Your task to perform on an android device: Clear the cart on newegg. Search for duracell triple a on newegg, select the first entry, and add it to the cart. Image 0: 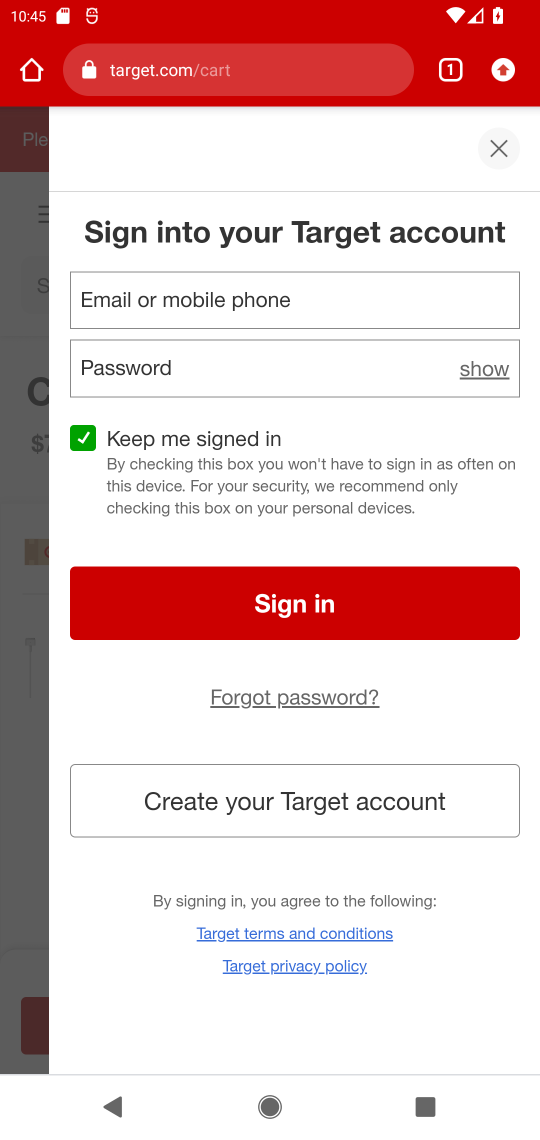
Step 0: press home button
Your task to perform on an android device: Clear the cart on newegg. Search for duracell triple a on newegg, select the first entry, and add it to the cart. Image 1: 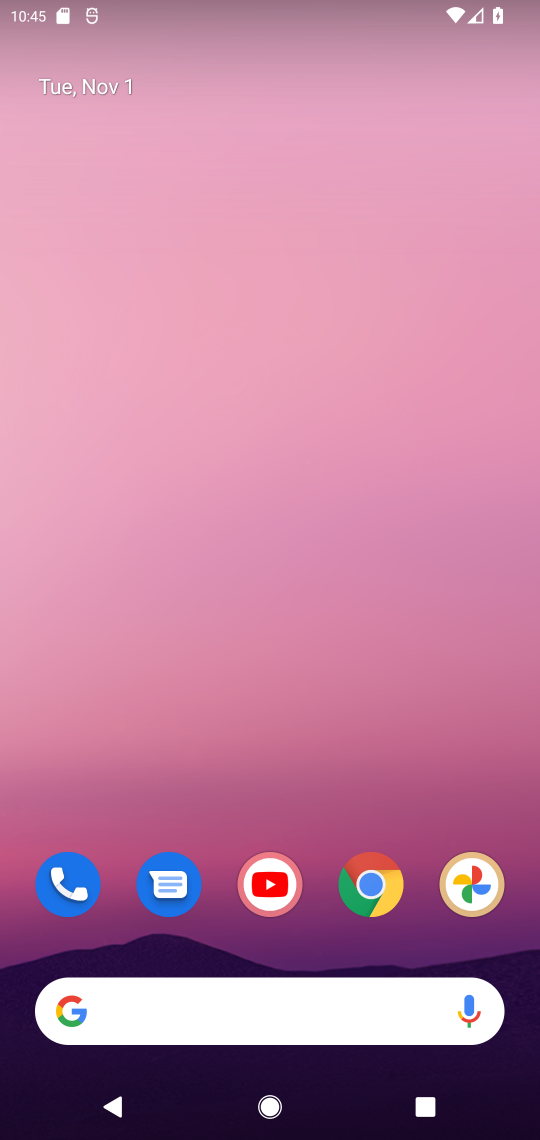
Step 1: click (367, 888)
Your task to perform on an android device: Clear the cart on newegg. Search for duracell triple a on newegg, select the first entry, and add it to the cart. Image 2: 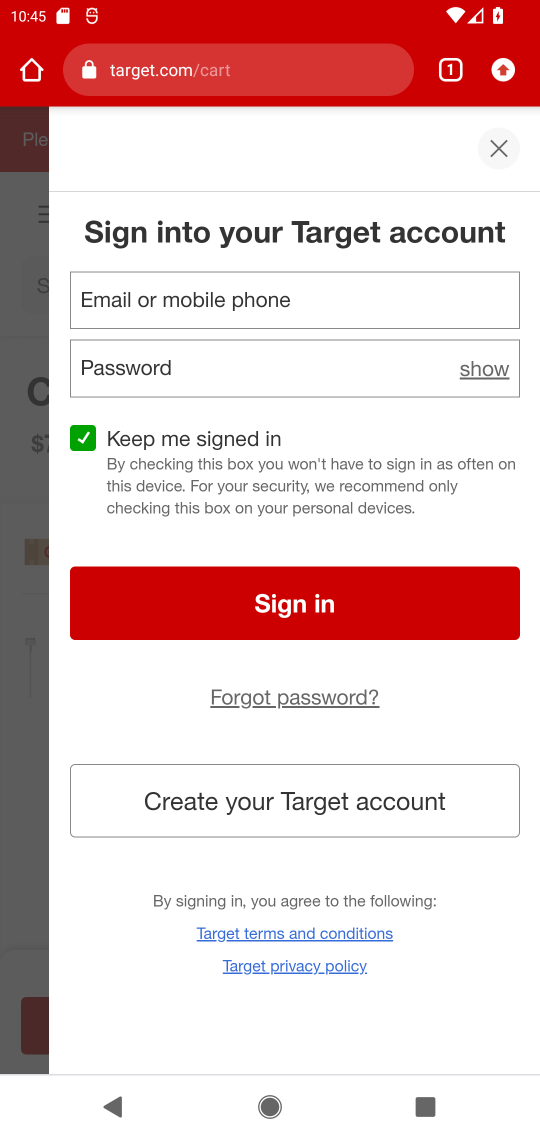
Step 2: click (241, 71)
Your task to perform on an android device: Clear the cart on newegg. Search for duracell triple a on newegg, select the first entry, and add it to the cart. Image 3: 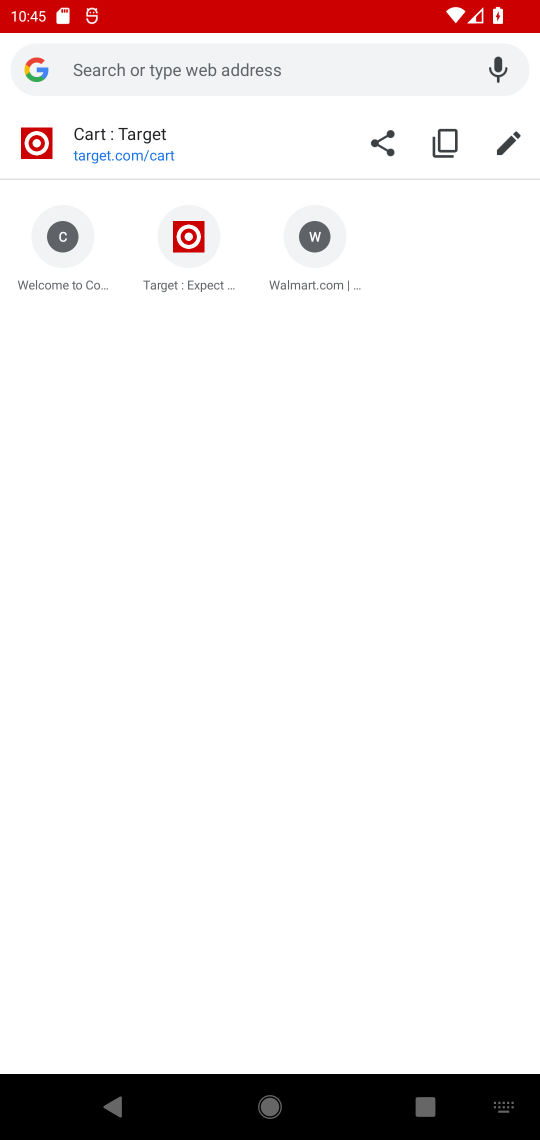
Step 3: type "newegg.com"
Your task to perform on an android device: Clear the cart on newegg. Search for duracell triple a on newegg, select the first entry, and add it to the cart. Image 4: 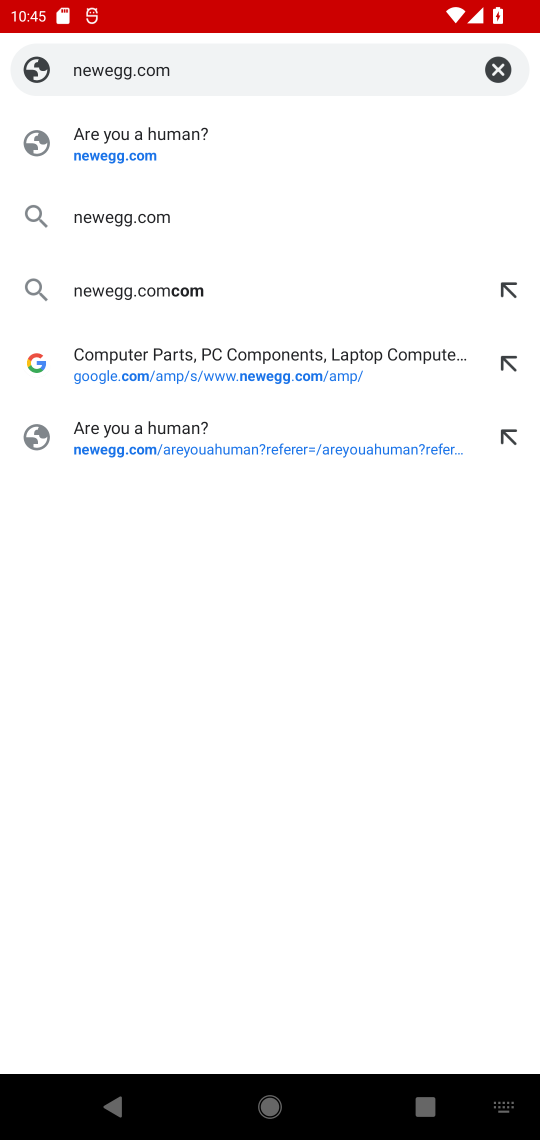
Step 4: click (124, 230)
Your task to perform on an android device: Clear the cart on newegg. Search for duracell triple a on newegg, select the first entry, and add it to the cart. Image 5: 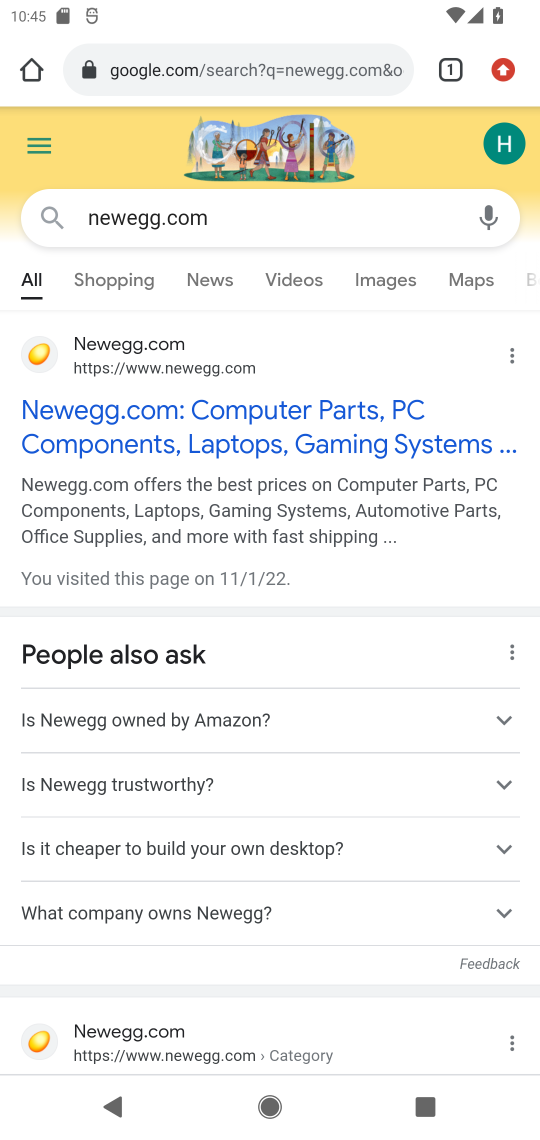
Step 5: click (67, 429)
Your task to perform on an android device: Clear the cart on newegg. Search for duracell triple a on newegg, select the first entry, and add it to the cart. Image 6: 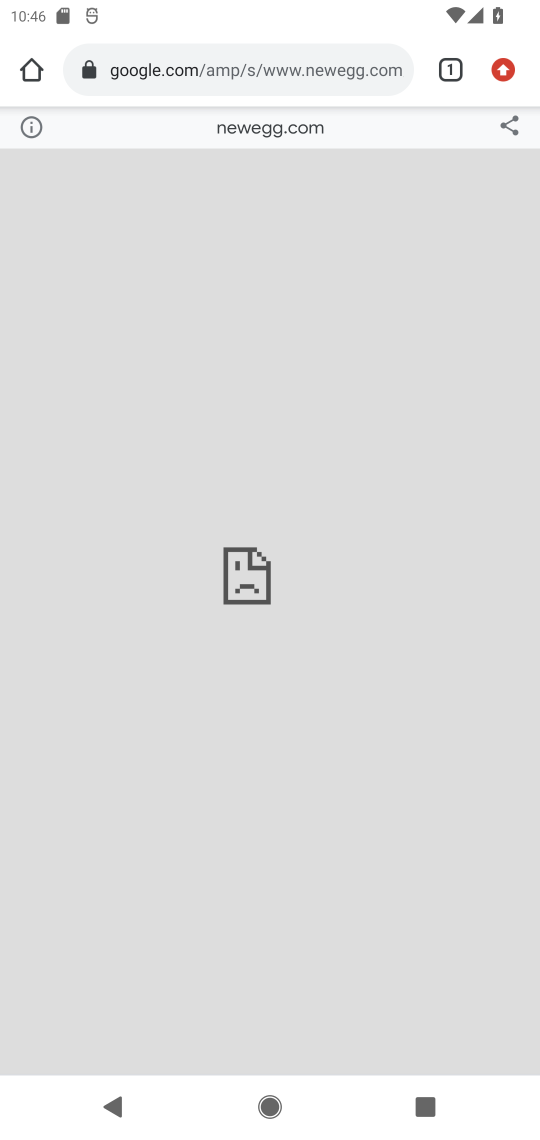
Step 6: click (306, 81)
Your task to perform on an android device: Clear the cart on newegg. Search for duracell triple a on newegg, select the first entry, and add it to the cart. Image 7: 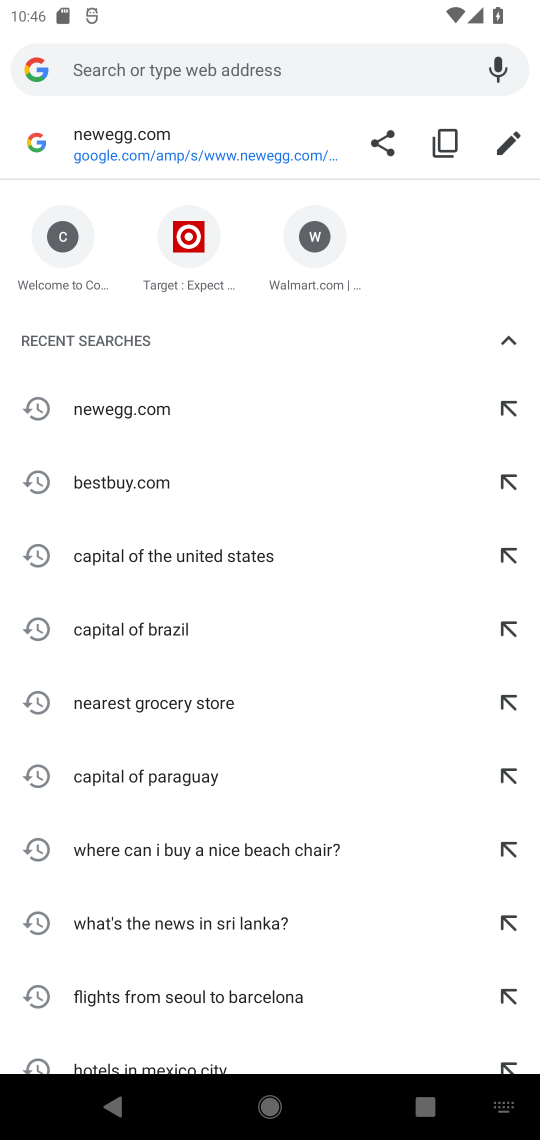
Step 7: click (138, 142)
Your task to perform on an android device: Clear the cart on newegg. Search for duracell triple a on newegg, select the first entry, and add it to the cart. Image 8: 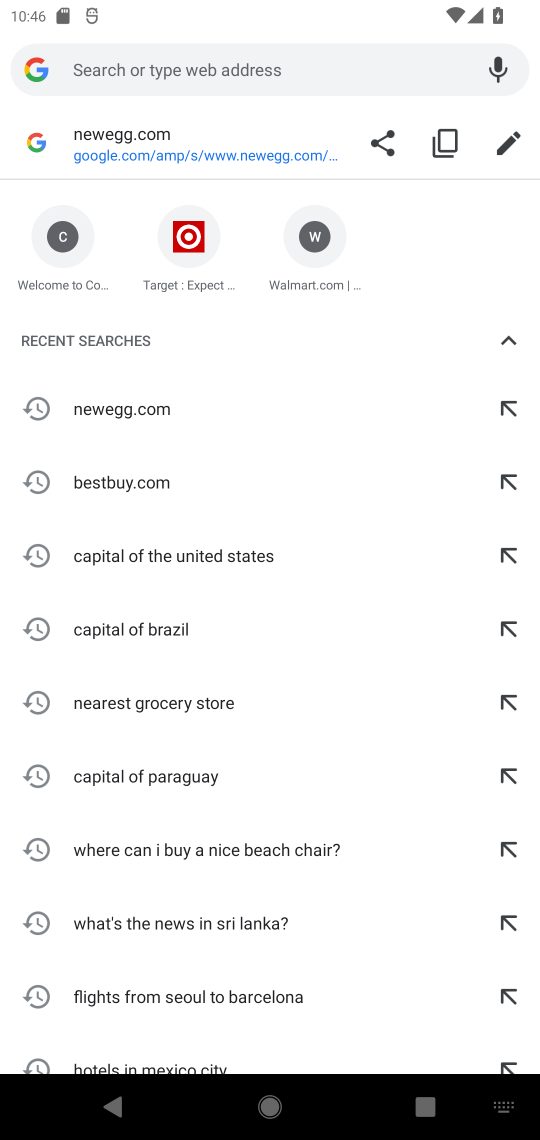
Step 8: click (82, 137)
Your task to perform on an android device: Clear the cart on newegg. Search for duracell triple a on newegg, select the first entry, and add it to the cart. Image 9: 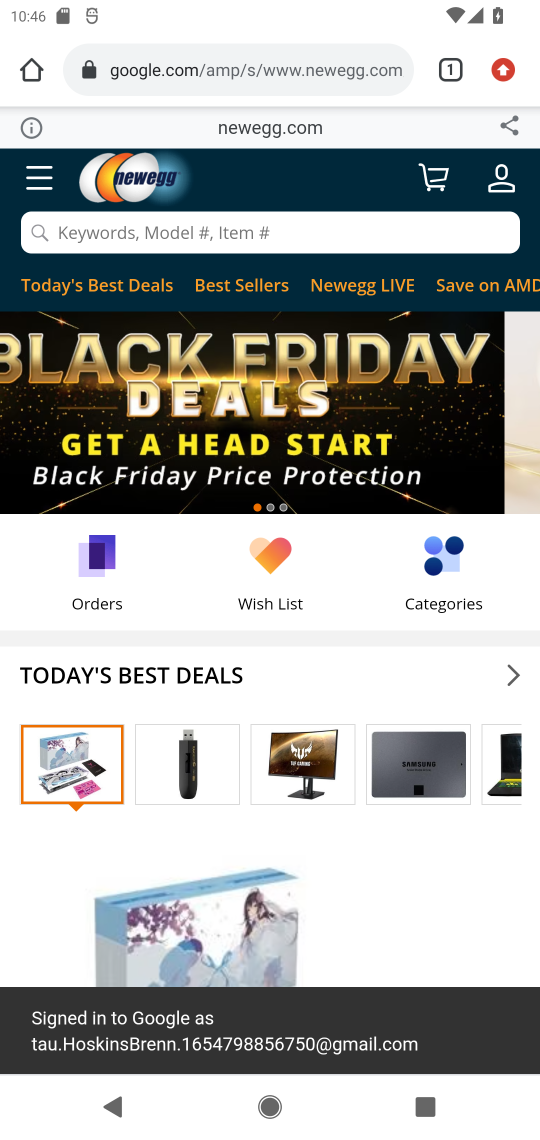
Step 9: click (131, 238)
Your task to perform on an android device: Clear the cart on newegg. Search for duracell triple a on newegg, select the first entry, and add it to the cart. Image 10: 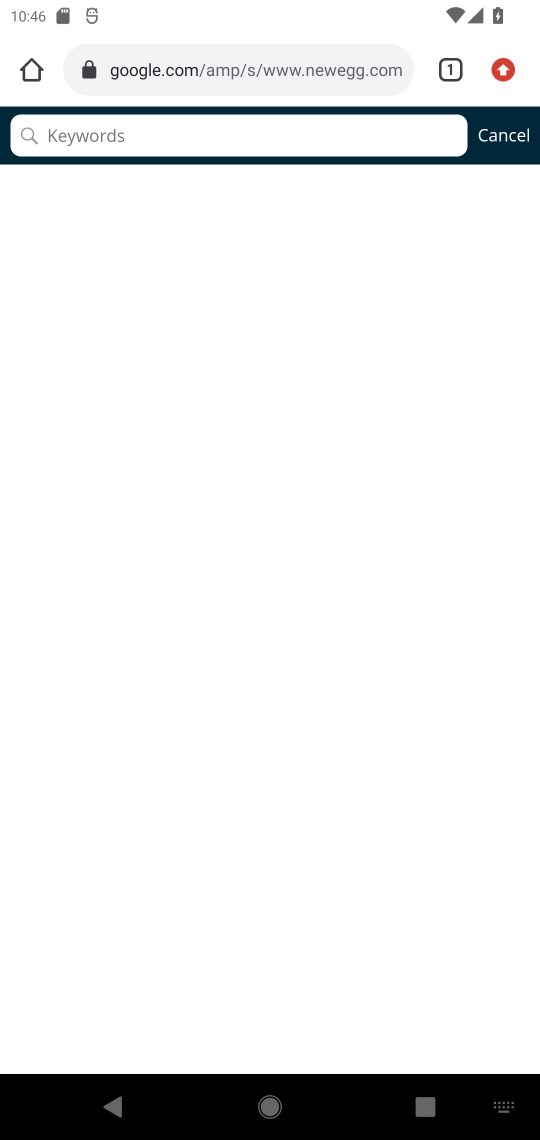
Step 10: type "duracell triple a "
Your task to perform on an android device: Clear the cart on newegg. Search for duracell triple a on newegg, select the first entry, and add it to the cart. Image 11: 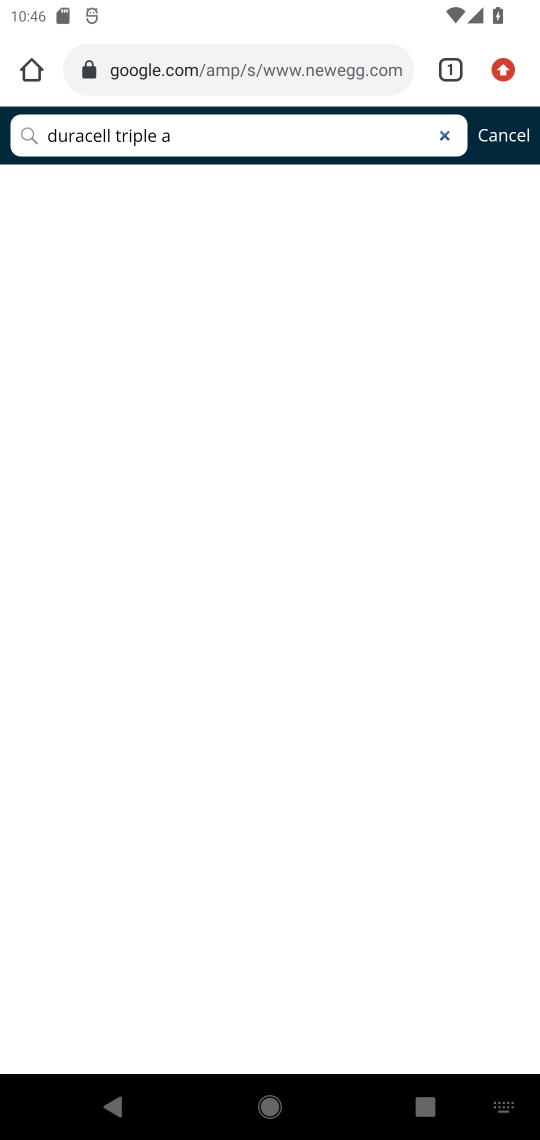
Step 11: task complete